Your task to perform on an android device: Search for seafood restaurants on Google Maps Image 0: 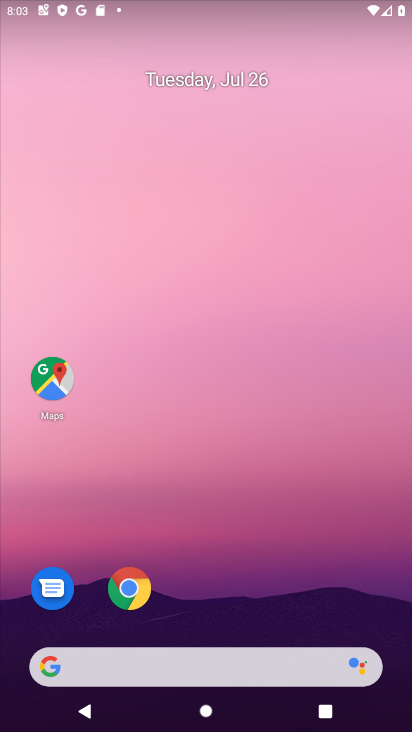
Step 0: press home button
Your task to perform on an android device: Search for seafood restaurants on Google Maps Image 1: 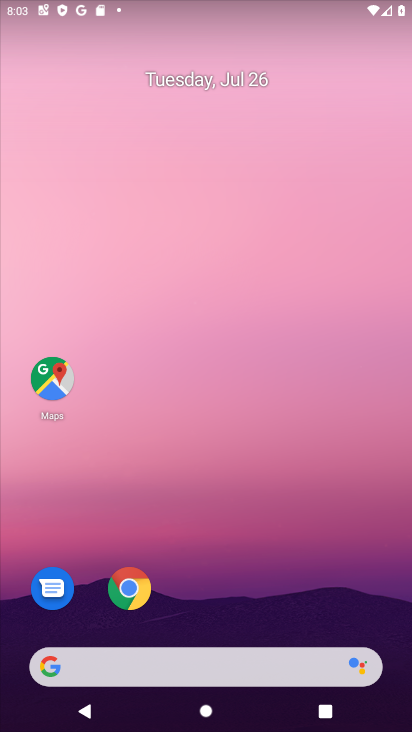
Step 1: click (62, 375)
Your task to perform on an android device: Search for seafood restaurants on Google Maps Image 2: 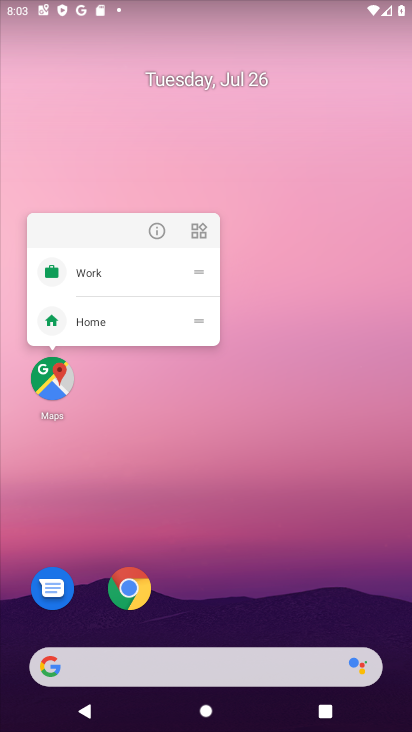
Step 2: click (62, 375)
Your task to perform on an android device: Search for seafood restaurants on Google Maps Image 3: 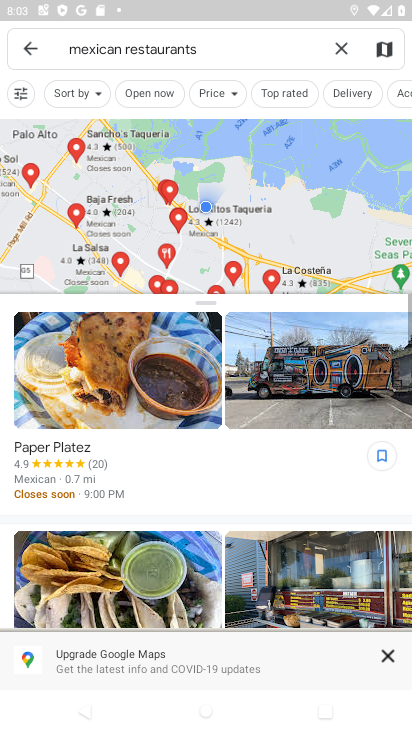
Step 3: click (30, 54)
Your task to perform on an android device: Search for seafood restaurants on Google Maps Image 4: 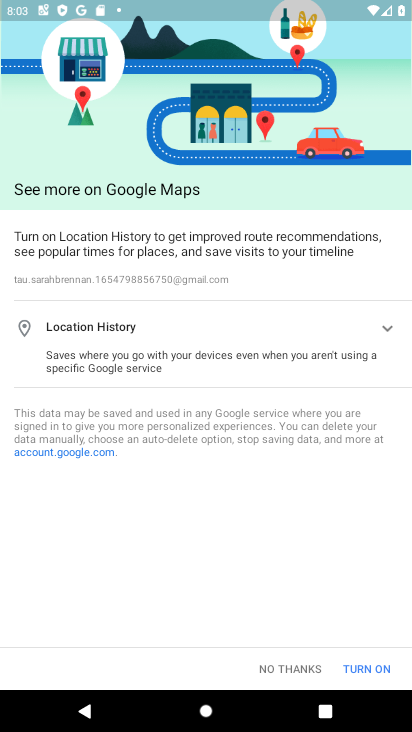
Step 4: type "seafood restaurants"
Your task to perform on an android device: Search for seafood restaurants on Google Maps Image 5: 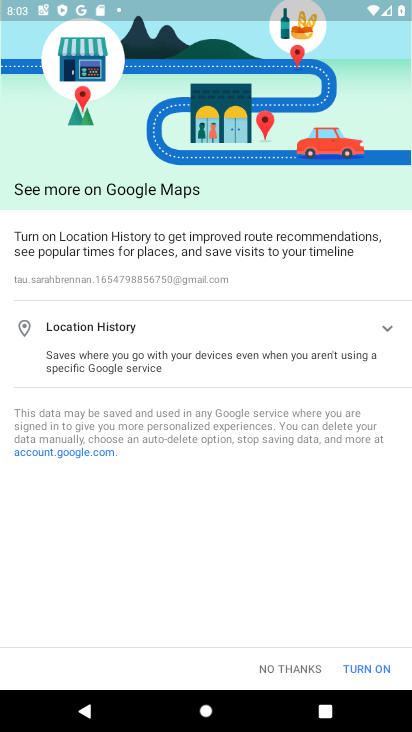
Step 5: click (298, 665)
Your task to perform on an android device: Search for seafood restaurants on Google Maps Image 6: 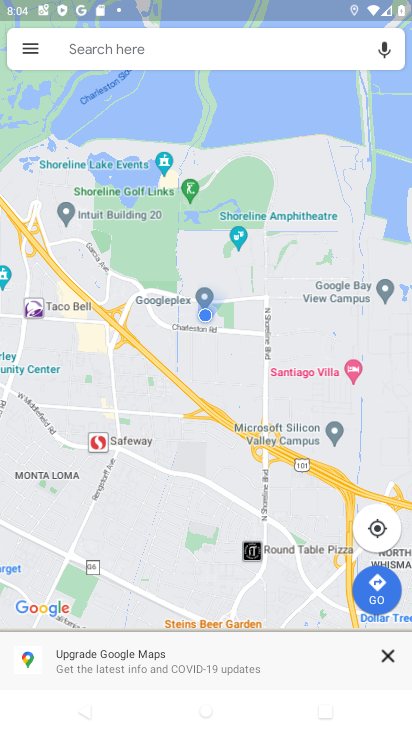
Step 6: click (130, 50)
Your task to perform on an android device: Search for seafood restaurants on Google Maps Image 7: 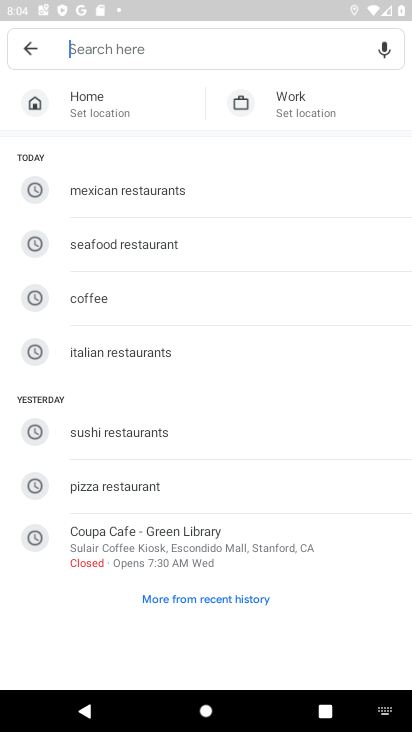
Step 7: click (90, 238)
Your task to perform on an android device: Search for seafood restaurants on Google Maps Image 8: 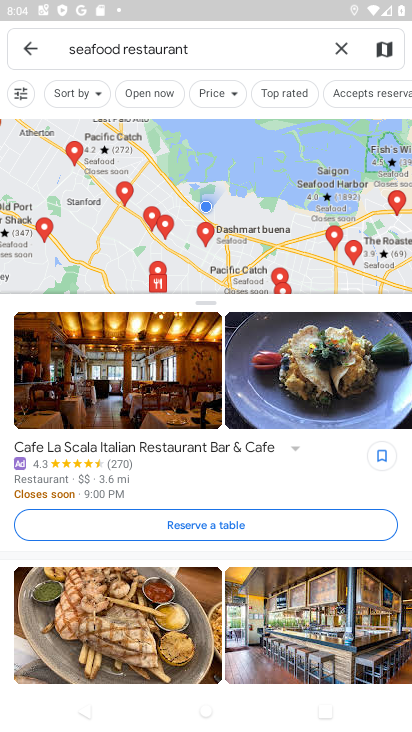
Step 8: task complete